Your task to perform on an android device: Open Maps and search for coffee Image 0: 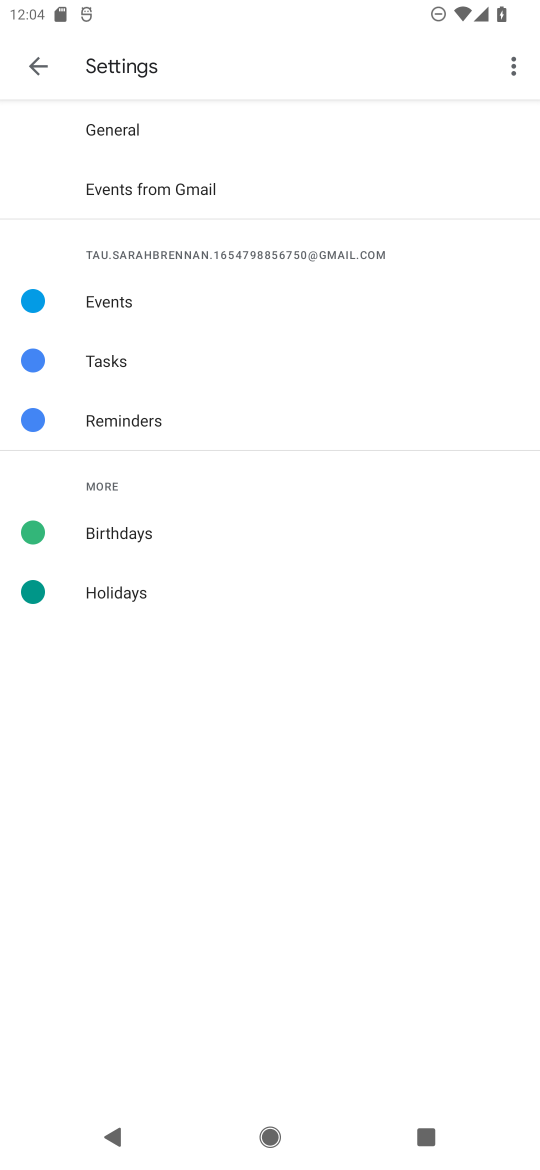
Step 0: press home button
Your task to perform on an android device: Open Maps and search for coffee Image 1: 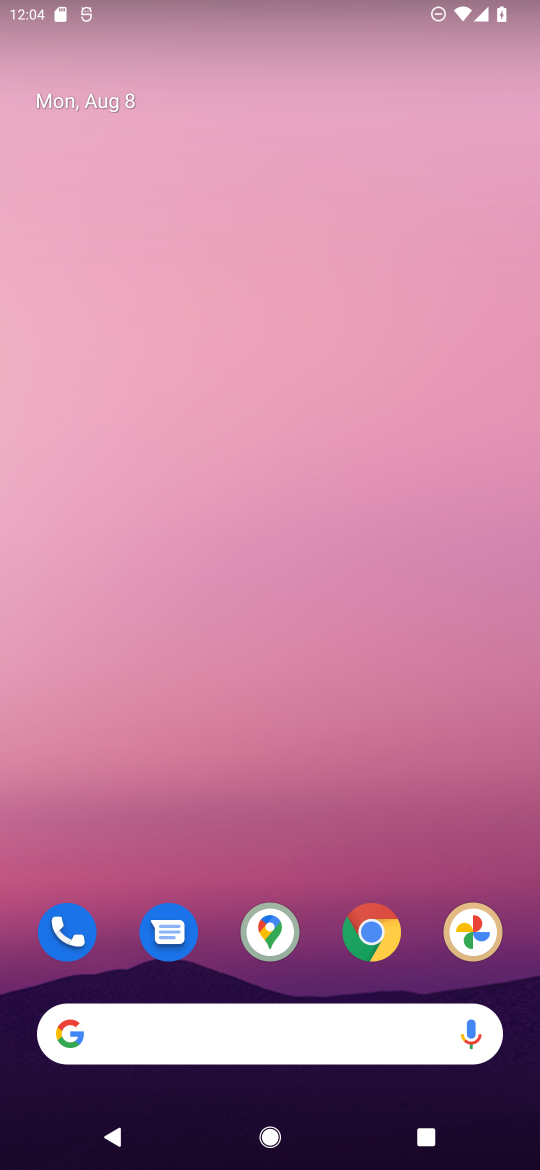
Step 1: click (283, 929)
Your task to perform on an android device: Open Maps and search for coffee Image 2: 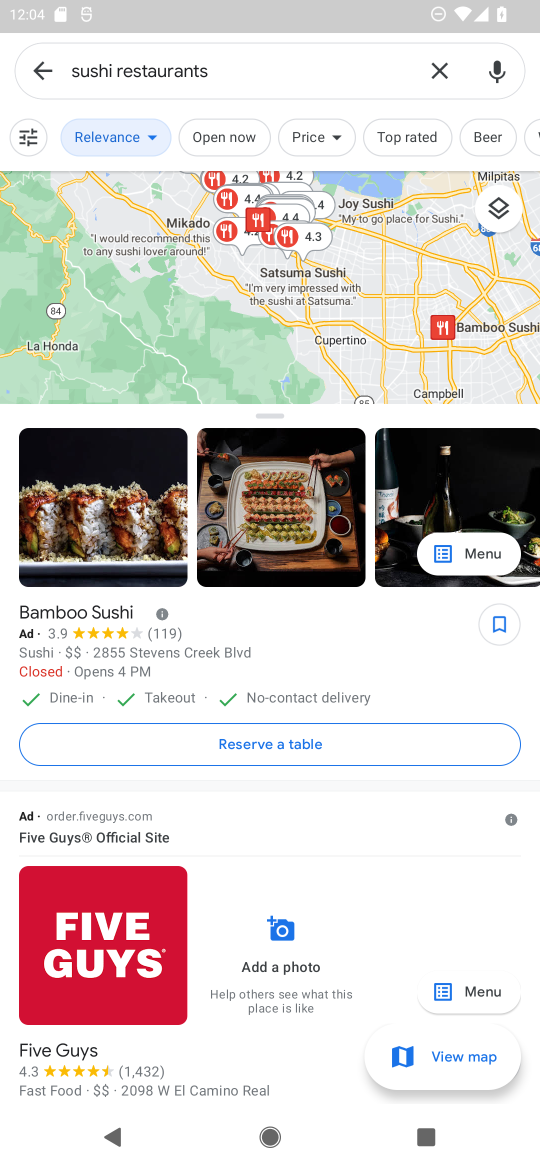
Step 2: click (436, 84)
Your task to perform on an android device: Open Maps and search for coffee Image 3: 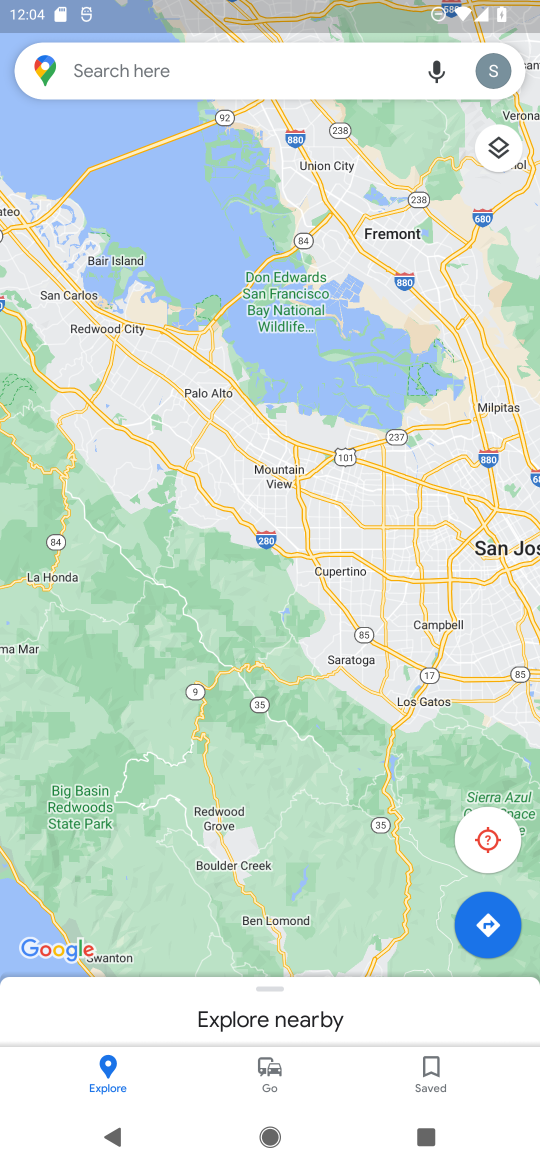
Step 3: click (351, 78)
Your task to perform on an android device: Open Maps and search for coffee Image 4: 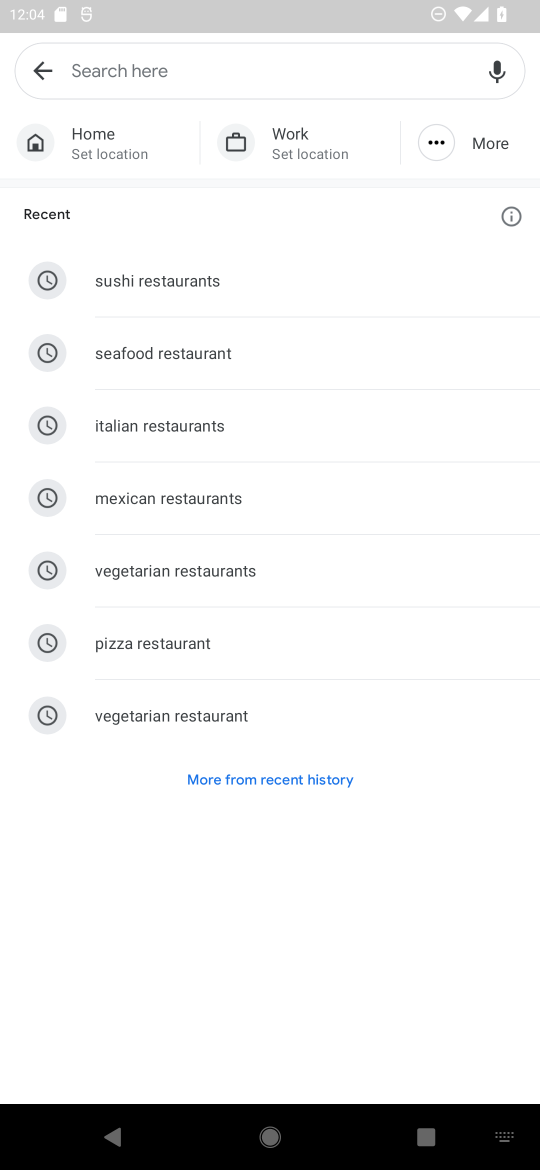
Step 4: type "coffee"
Your task to perform on an android device: Open Maps and search for coffee Image 5: 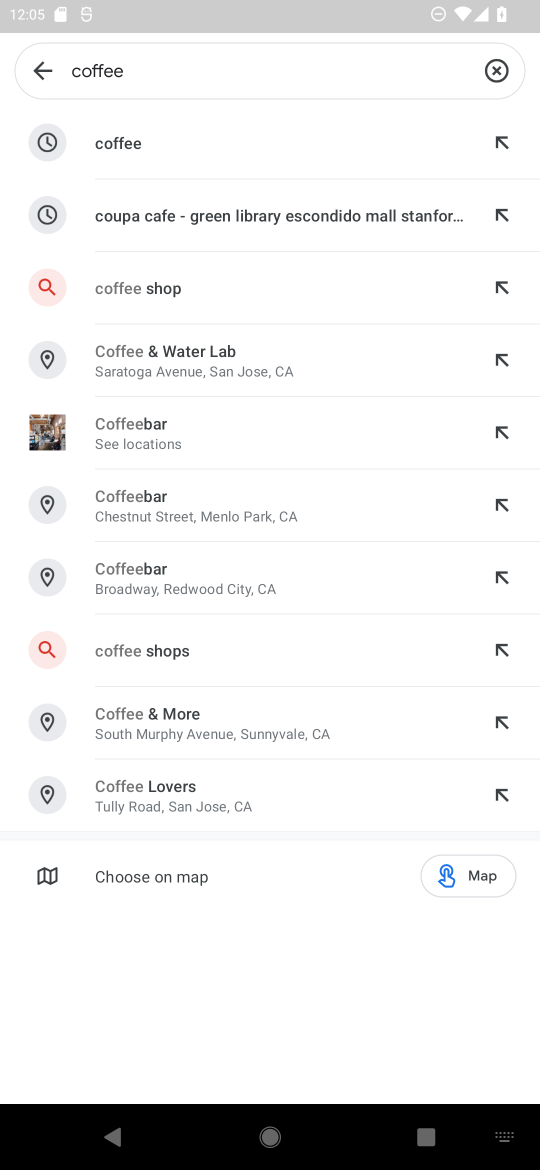
Step 5: click (228, 143)
Your task to perform on an android device: Open Maps and search for coffee Image 6: 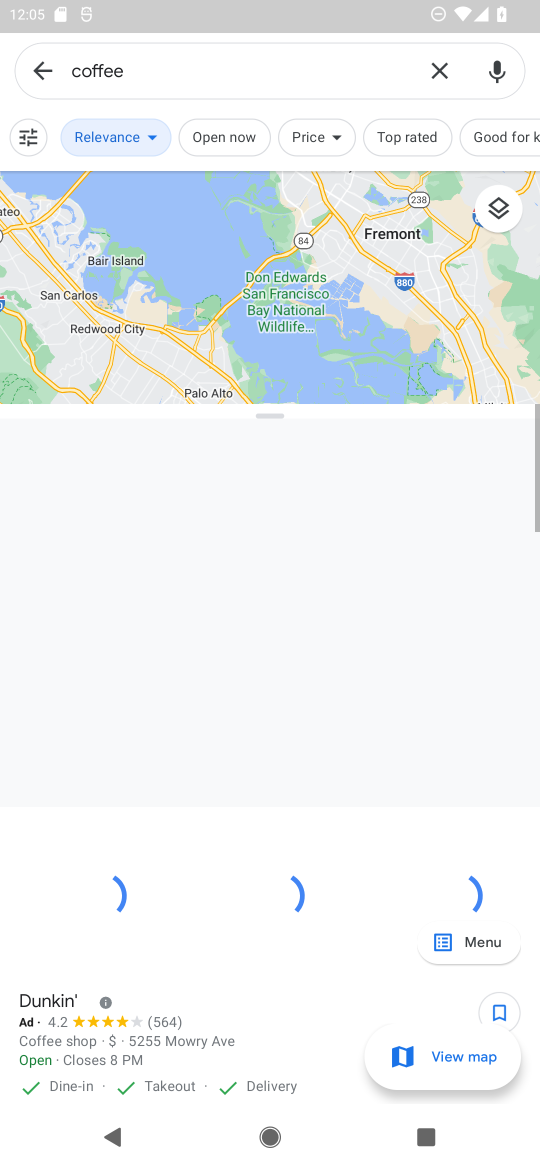
Step 6: click (151, 156)
Your task to perform on an android device: Open Maps and search for coffee Image 7: 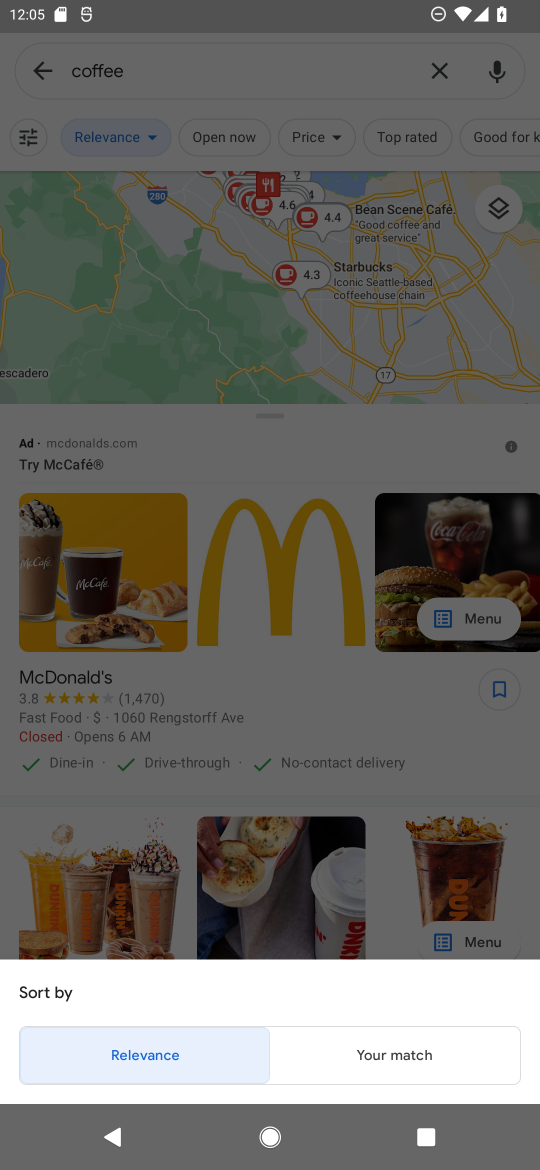
Step 7: task complete